Your task to perform on an android device: Open settings on Google Maps Image 0: 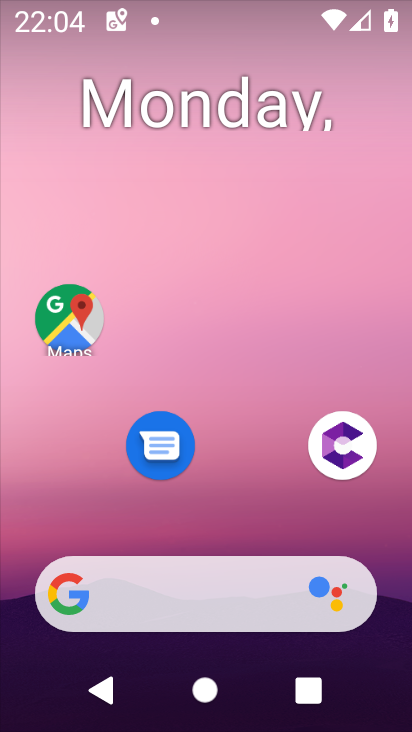
Step 0: click (69, 321)
Your task to perform on an android device: Open settings on Google Maps Image 1: 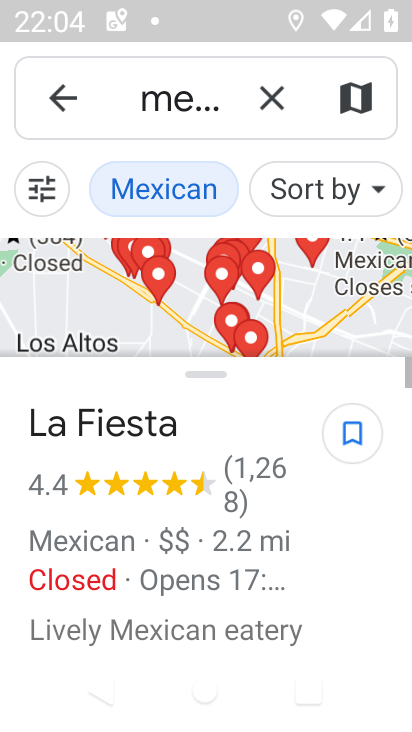
Step 1: click (272, 95)
Your task to perform on an android device: Open settings on Google Maps Image 2: 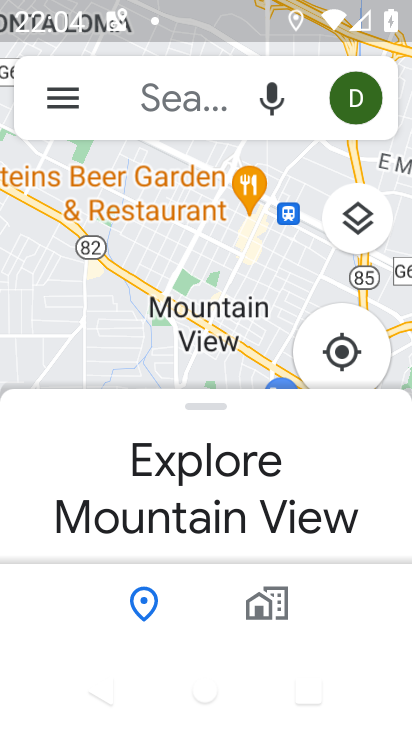
Step 2: click (50, 99)
Your task to perform on an android device: Open settings on Google Maps Image 3: 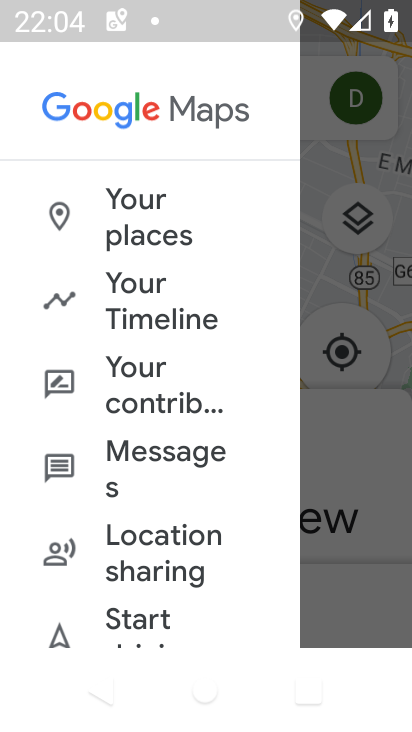
Step 3: drag from (34, 608) to (73, 146)
Your task to perform on an android device: Open settings on Google Maps Image 4: 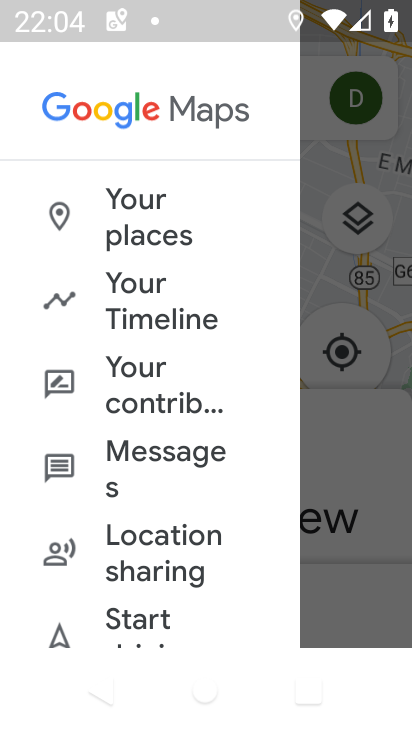
Step 4: drag from (30, 626) to (89, 74)
Your task to perform on an android device: Open settings on Google Maps Image 5: 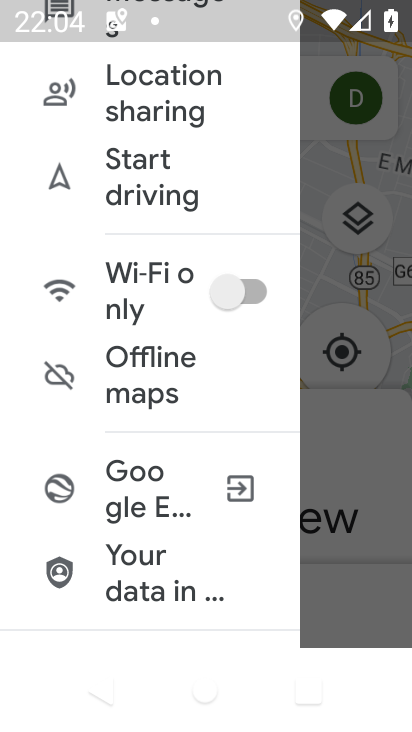
Step 5: drag from (39, 602) to (120, 13)
Your task to perform on an android device: Open settings on Google Maps Image 6: 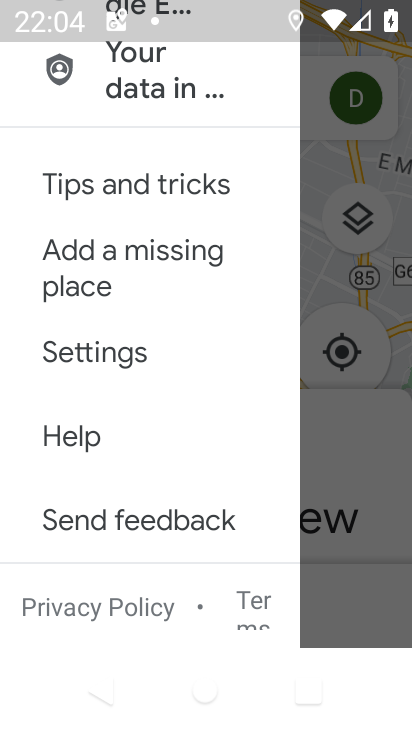
Step 6: click (154, 344)
Your task to perform on an android device: Open settings on Google Maps Image 7: 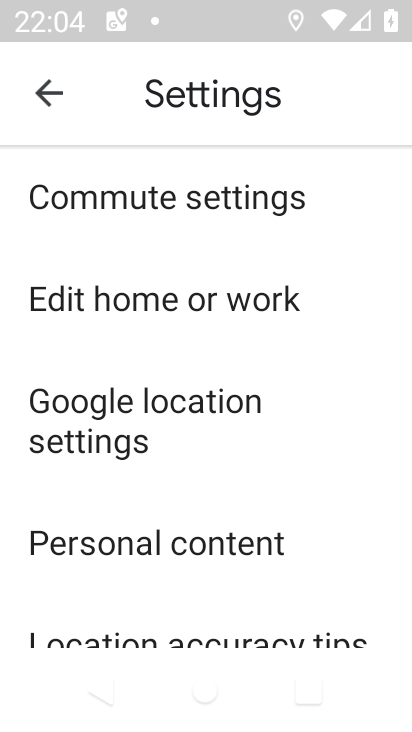
Step 7: task complete